Your task to perform on an android device: Open Android settings Image 0: 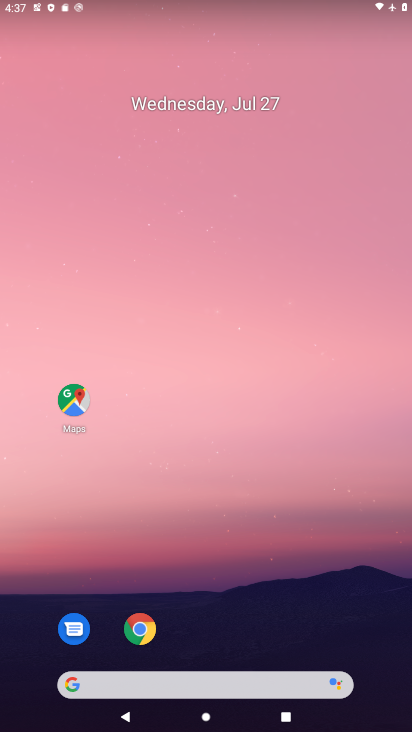
Step 0: drag from (207, 648) to (209, 192)
Your task to perform on an android device: Open Android settings Image 1: 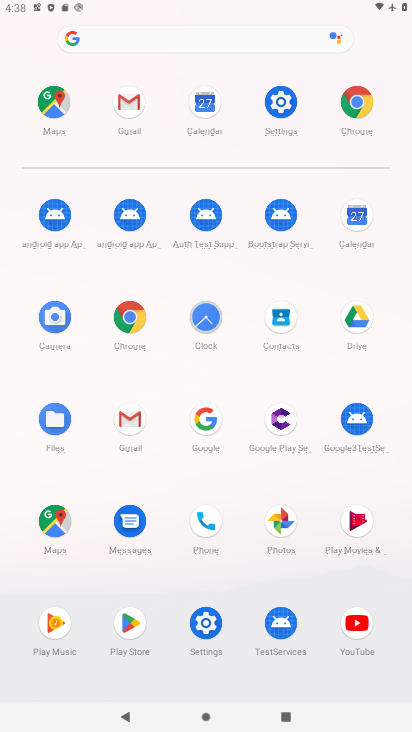
Step 1: click (198, 629)
Your task to perform on an android device: Open Android settings Image 2: 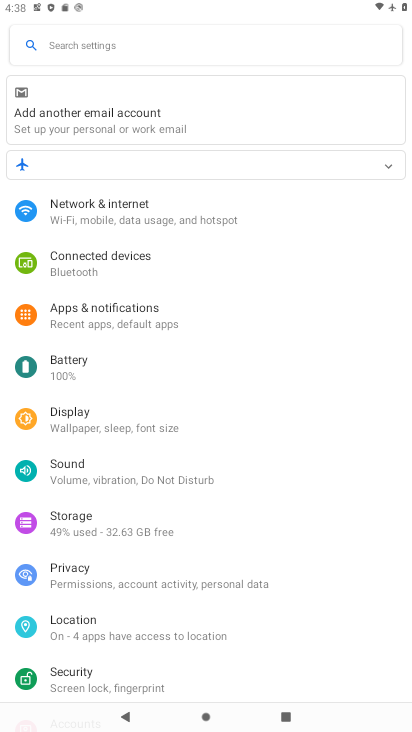
Step 2: task complete